Your task to perform on an android device: Turn on the flashlight Image 0: 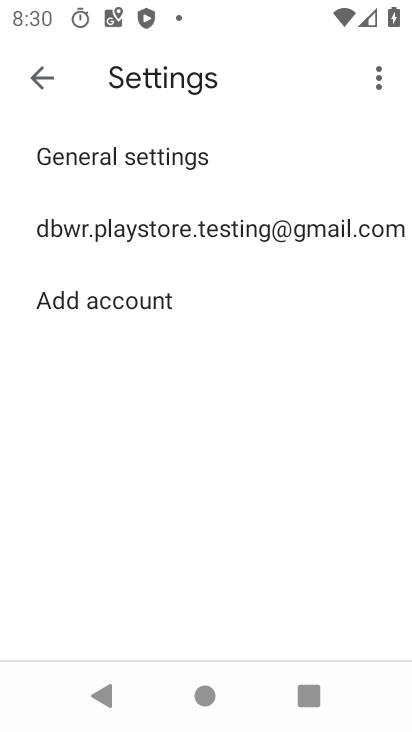
Step 0: press home button
Your task to perform on an android device: Turn on the flashlight Image 1: 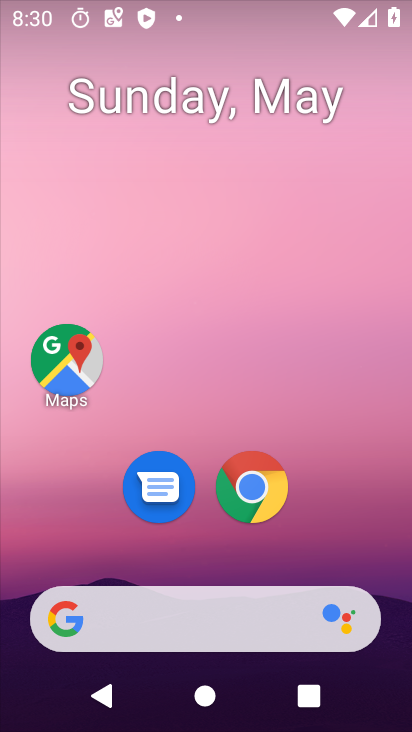
Step 1: drag from (72, 530) to (229, 147)
Your task to perform on an android device: Turn on the flashlight Image 2: 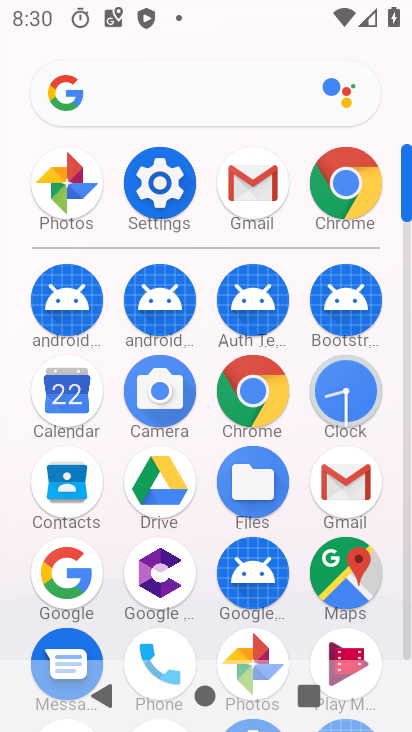
Step 2: click (168, 161)
Your task to perform on an android device: Turn on the flashlight Image 3: 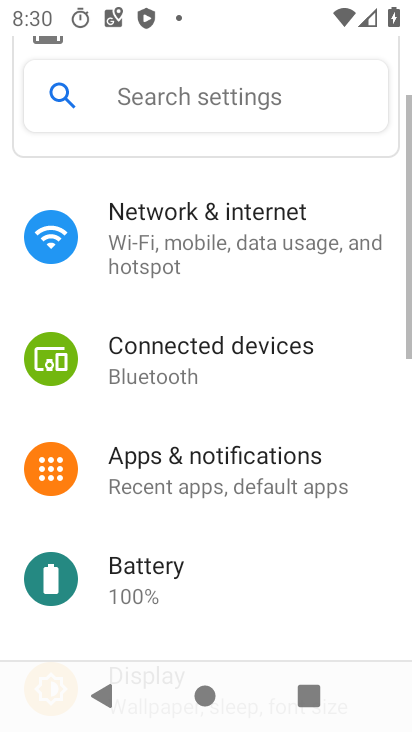
Step 3: click (155, 480)
Your task to perform on an android device: Turn on the flashlight Image 4: 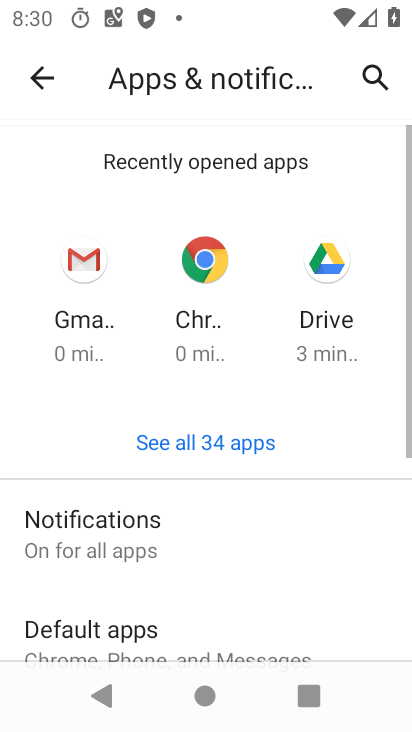
Step 4: task complete